Your task to perform on an android device: Open Google Image 0: 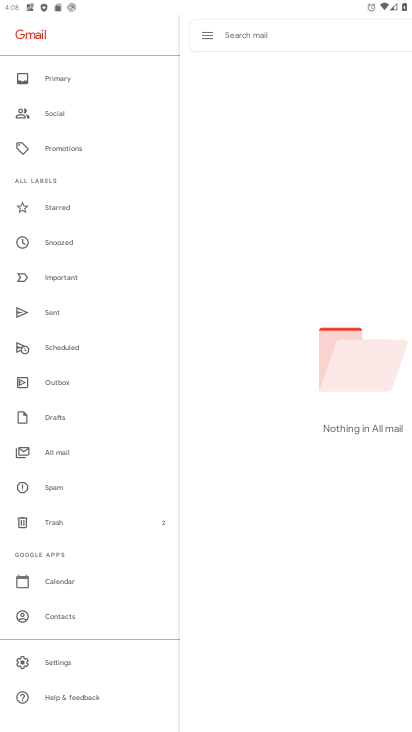
Step 0: press home button
Your task to perform on an android device: Open Google Image 1: 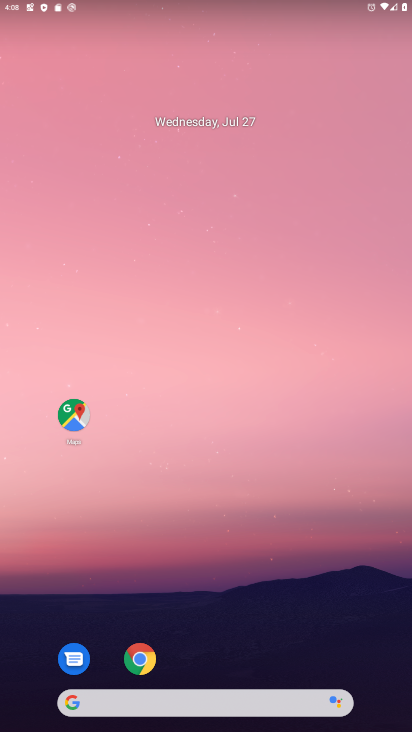
Step 1: drag from (217, 617) to (218, 15)
Your task to perform on an android device: Open Google Image 2: 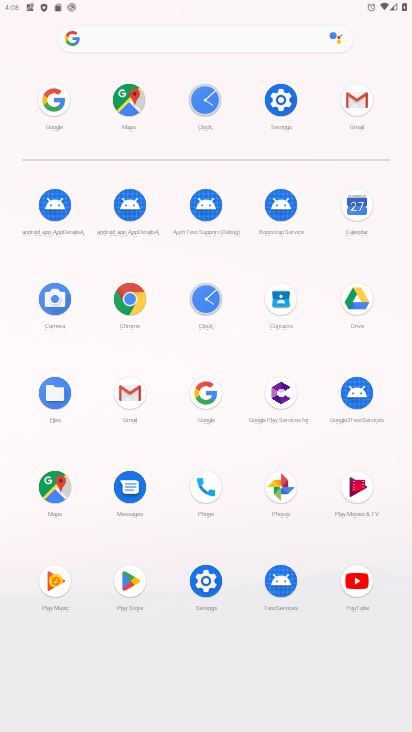
Step 2: click (209, 395)
Your task to perform on an android device: Open Google Image 3: 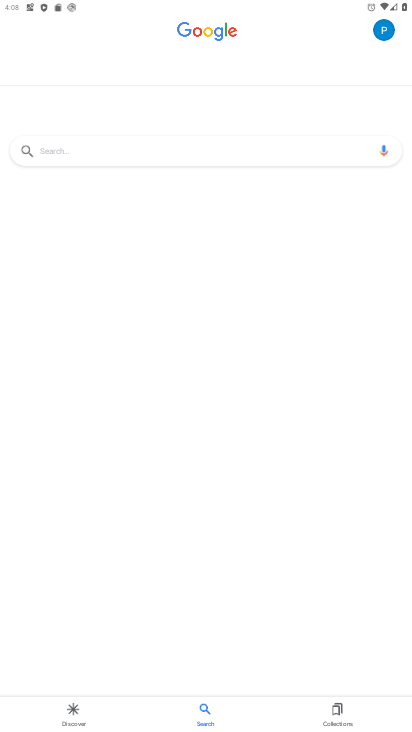
Step 3: task complete